Your task to perform on an android device: turn on the 24-hour format for clock Image 0: 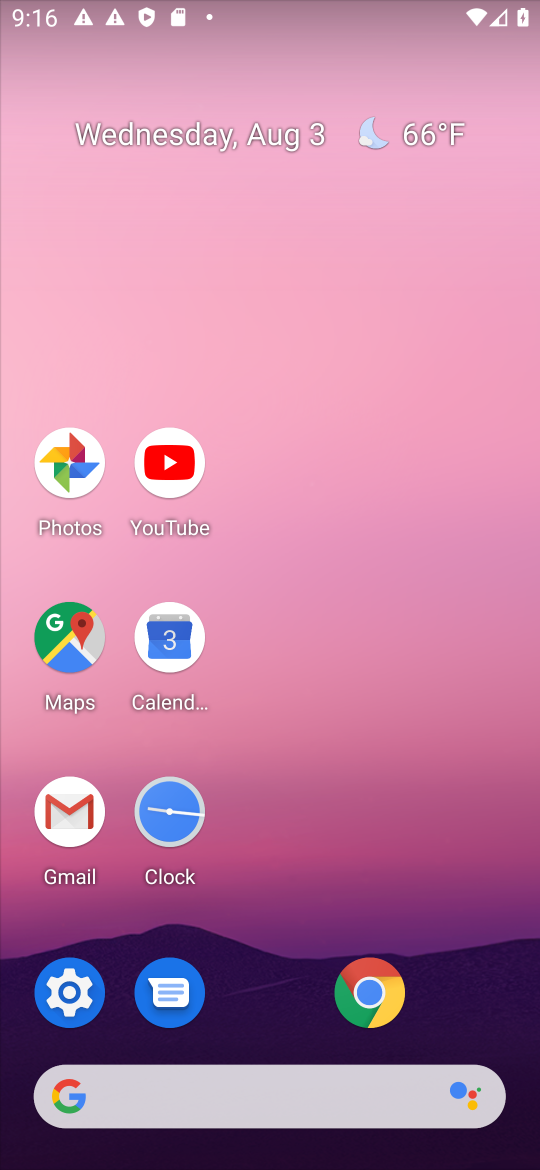
Step 0: click (166, 817)
Your task to perform on an android device: turn on the 24-hour format for clock Image 1: 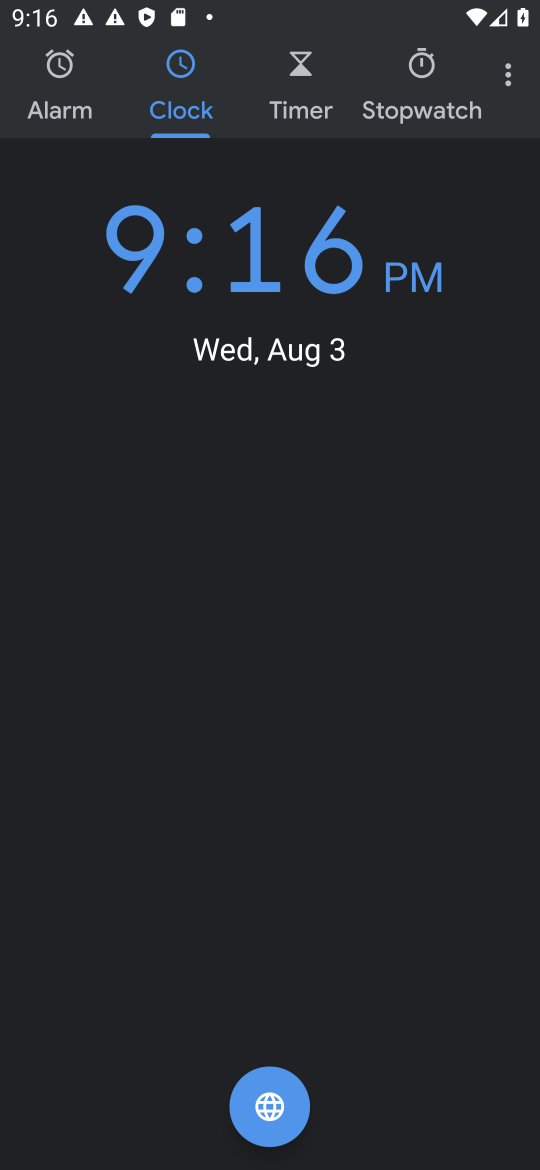
Step 1: click (514, 79)
Your task to perform on an android device: turn on the 24-hour format for clock Image 2: 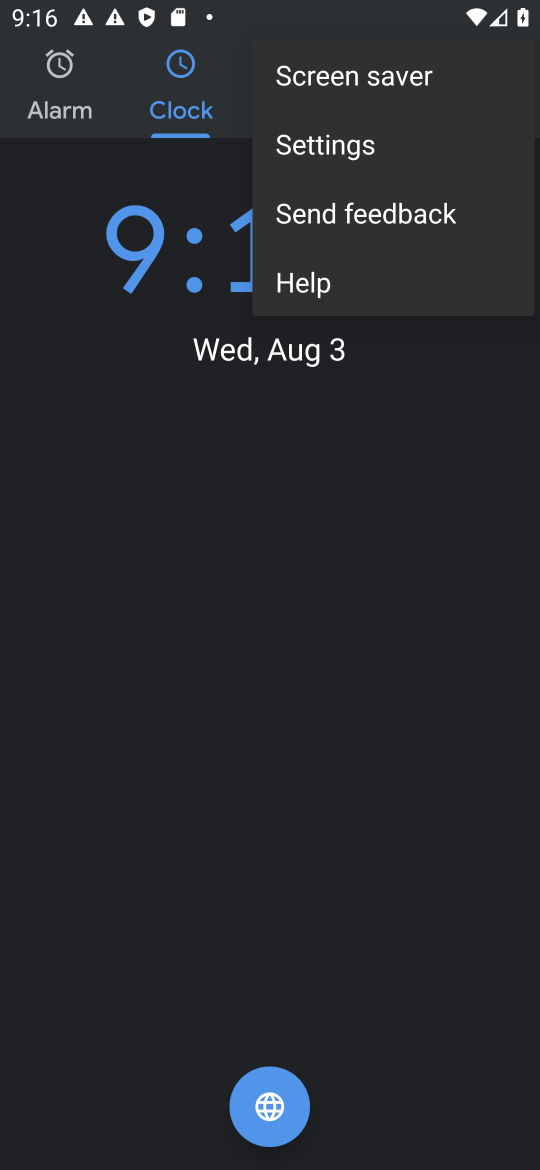
Step 2: click (323, 156)
Your task to perform on an android device: turn on the 24-hour format for clock Image 3: 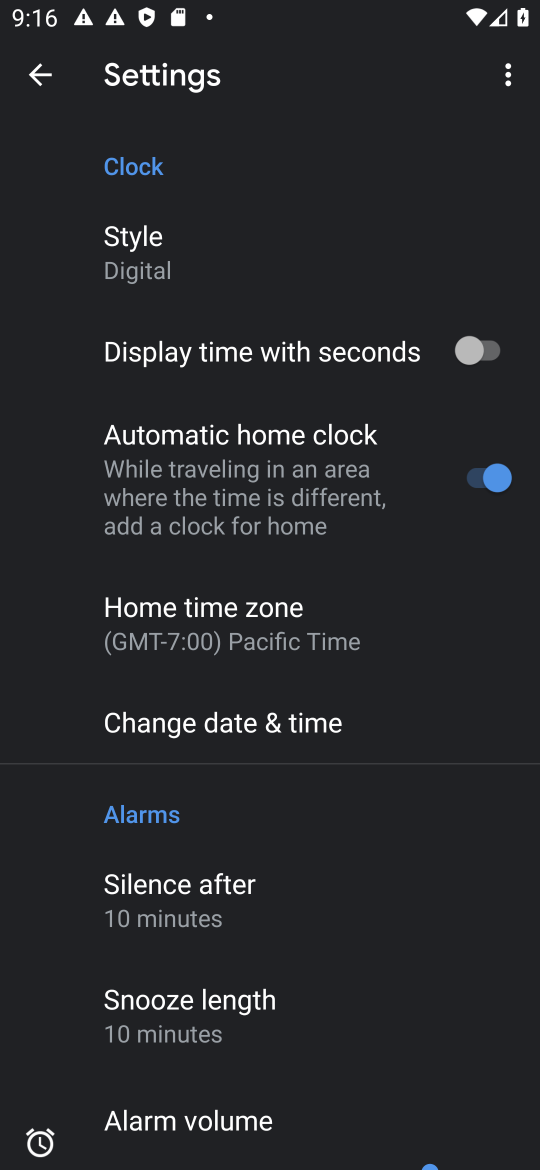
Step 3: click (240, 729)
Your task to perform on an android device: turn on the 24-hour format for clock Image 4: 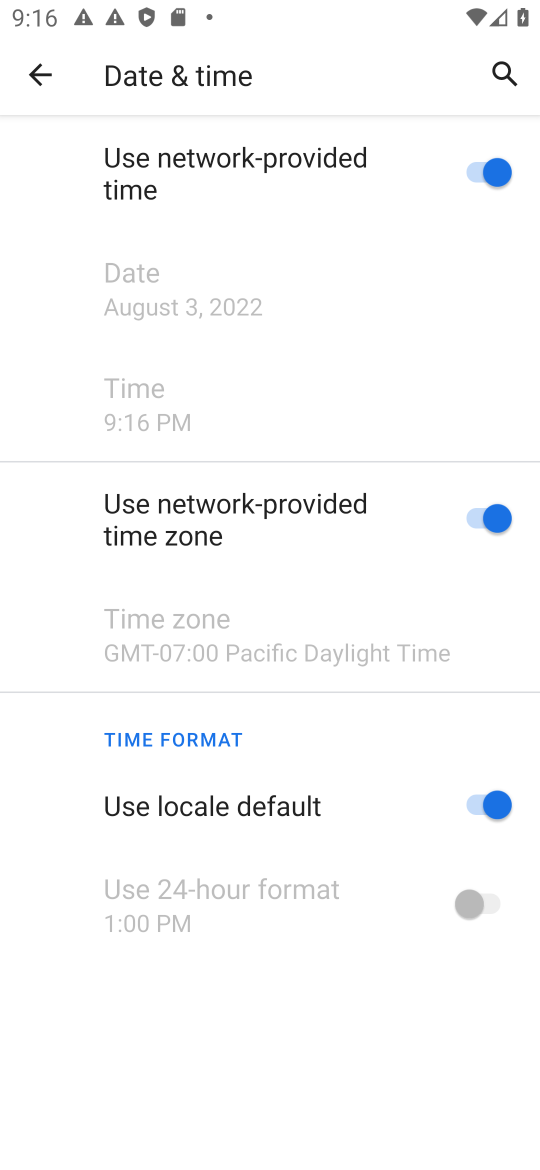
Step 4: click (490, 817)
Your task to perform on an android device: turn on the 24-hour format for clock Image 5: 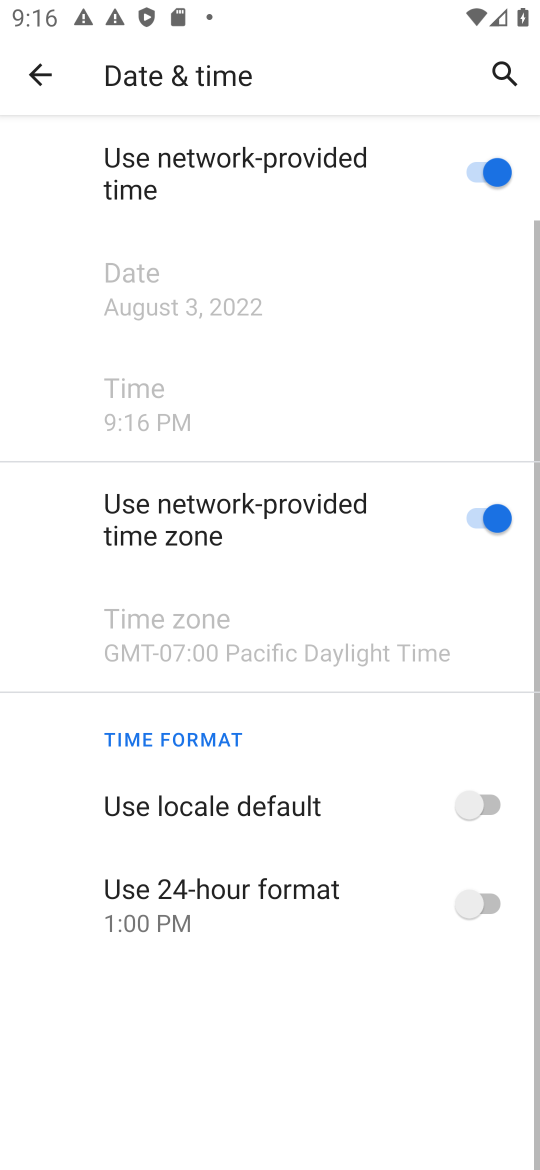
Step 5: click (479, 911)
Your task to perform on an android device: turn on the 24-hour format for clock Image 6: 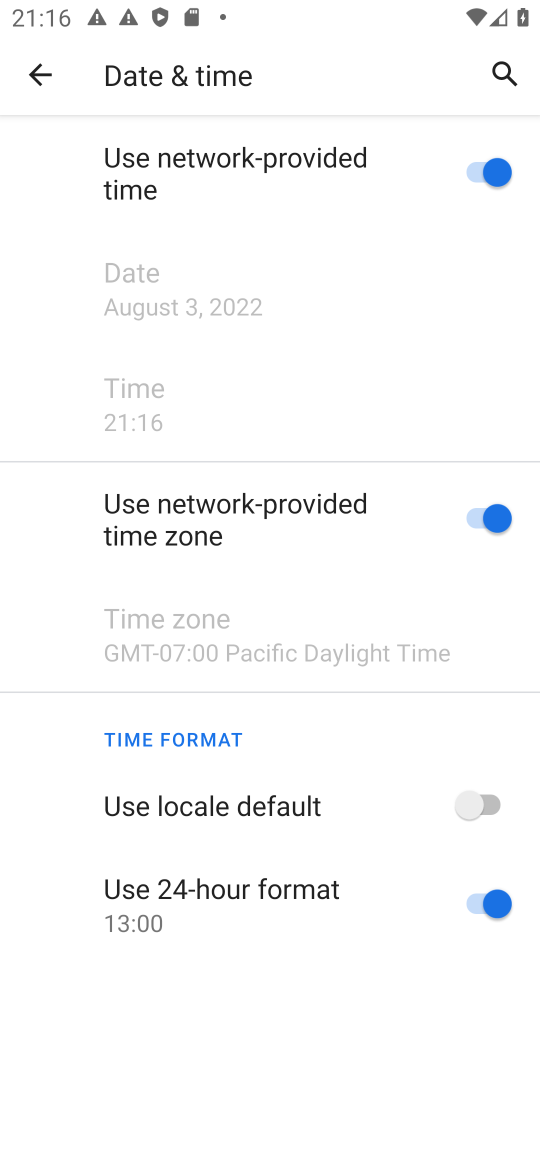
Step 6: task complete